Your task to perform on an android device: Check the news Image 0: 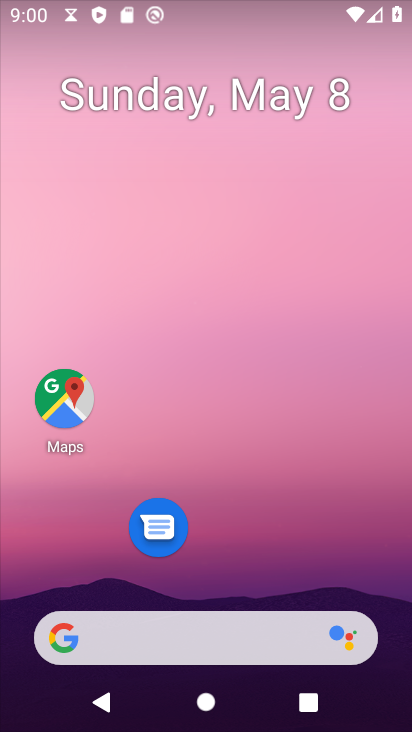
Step 0: drag from (263, 522) to (188, 20)
Your task to perform on an android device: Check the news Image 1: 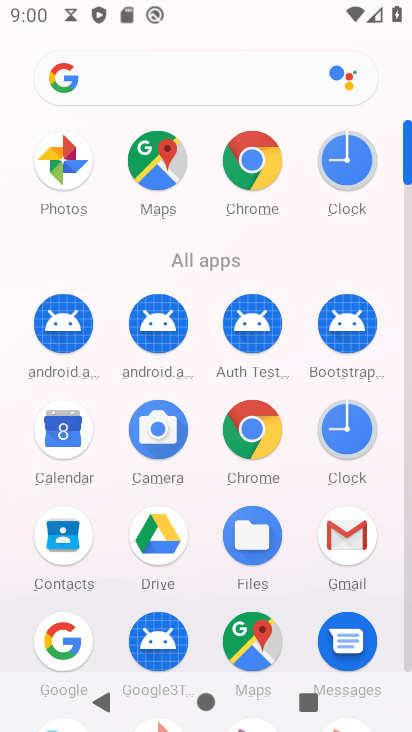
Step 1: drag from (204, 604) to (204, 471)
Your task to perform on an android device: Check the news Image 2: 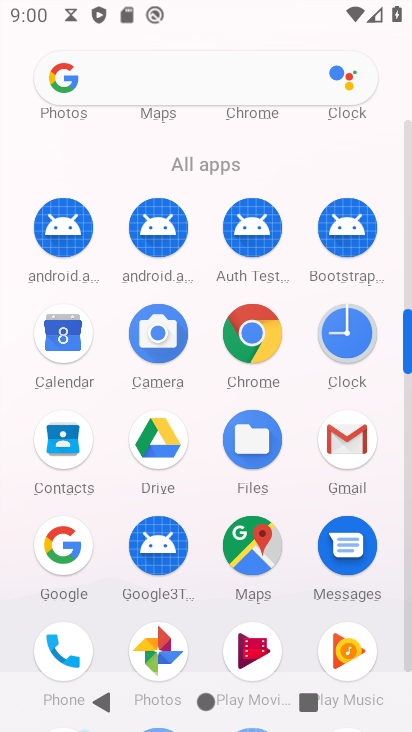
Step 2: click (60, 545)
Your task to perform on an android device: Check the news Image 3: 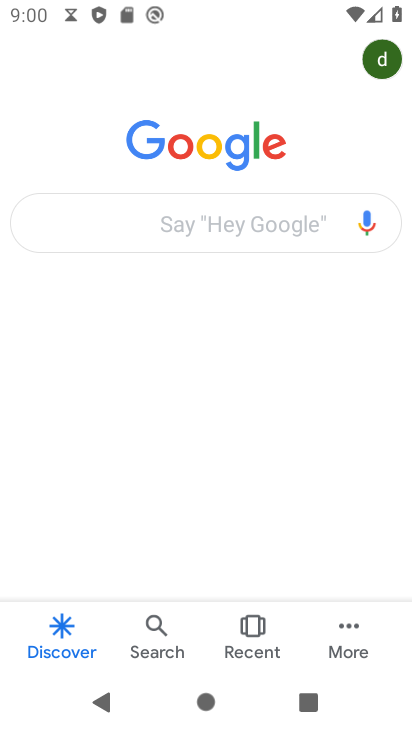
Step 3: click (189, 223)
Your task to perform on an android device: Check the news Image 4: 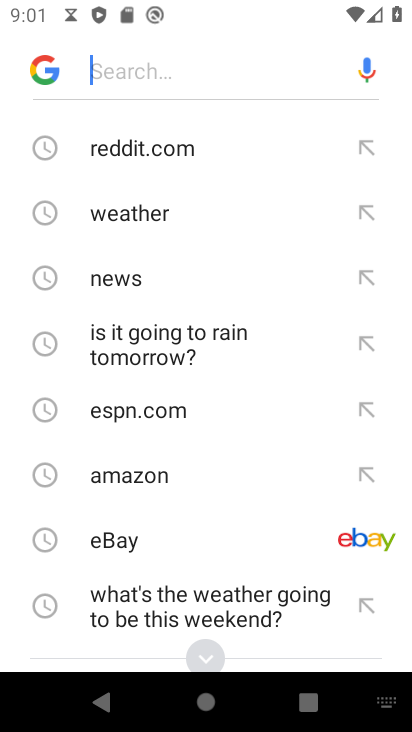
Step 4: click (116, 280)
Your task to perform on an android device: Check the news Image 5: 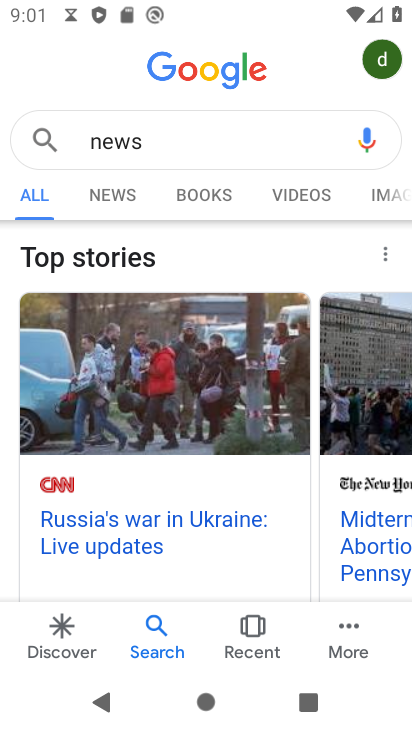
Step 5: task complete